Your task to perform on an android device: Go to location settings Image 0: 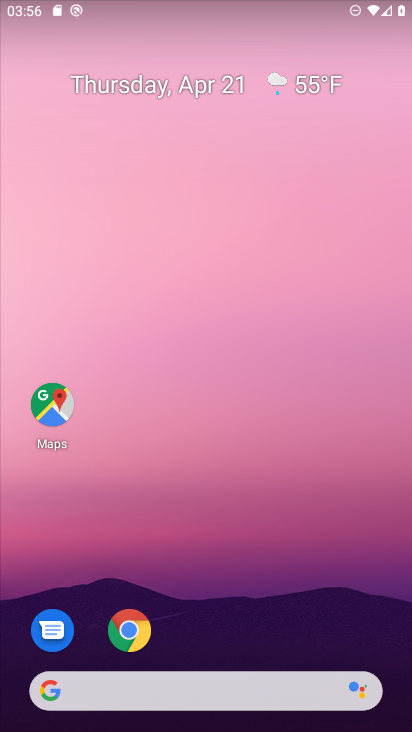
Step 0: drag from (293, 638) to (330, 37)
Your task to perform on an android device: Go to location settings Image 1: 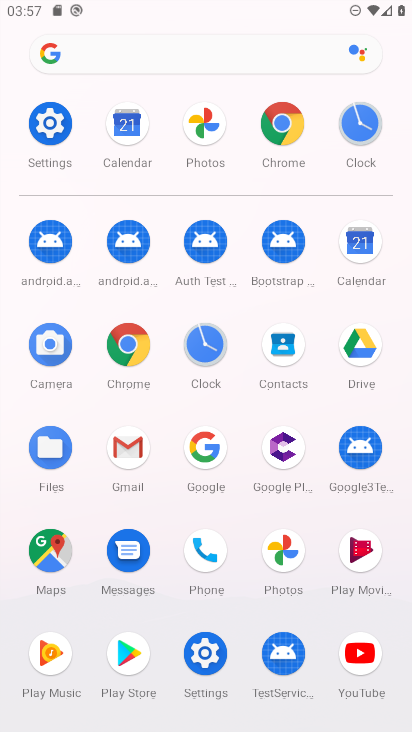
Step 1: click (46, 151)
Your task to perform on an android device: Go to location settings Image 2: 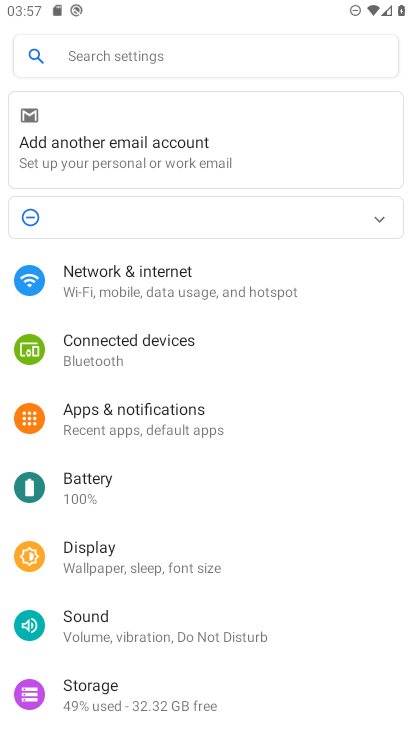
Step 2: drag from (167, 646) to (155, 445)
Your task to perform on an android device: Go to location settings Image 3: 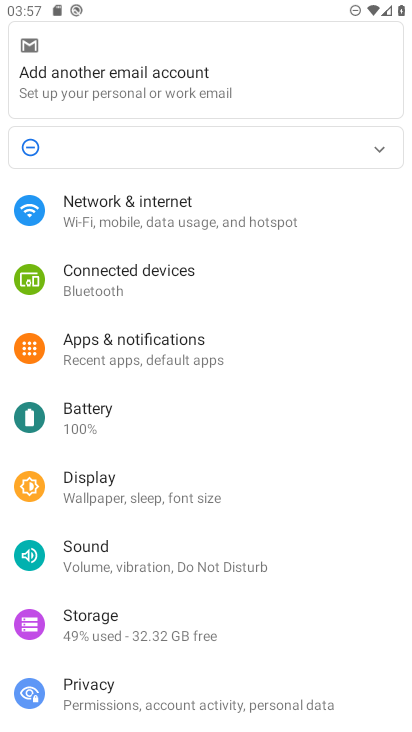
Step 3: drag from (165, 631) to (168, 244)
Your task to perform on an android device: Go to location settings Image 4: 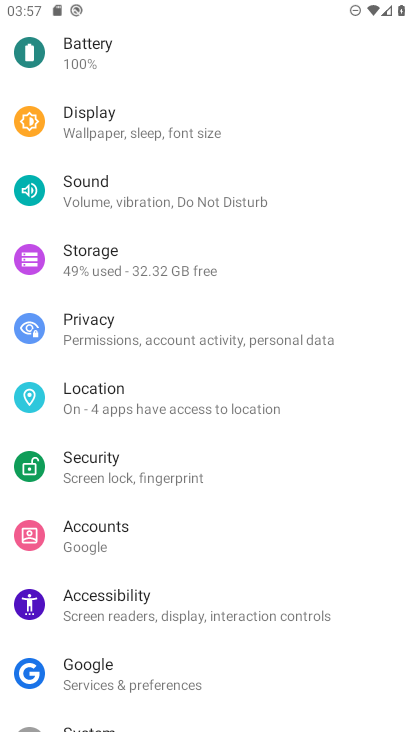
Step 4: drag from (148, 635) to (141, 225)
Your task to perform on an android device: Go to location settings Image 5: 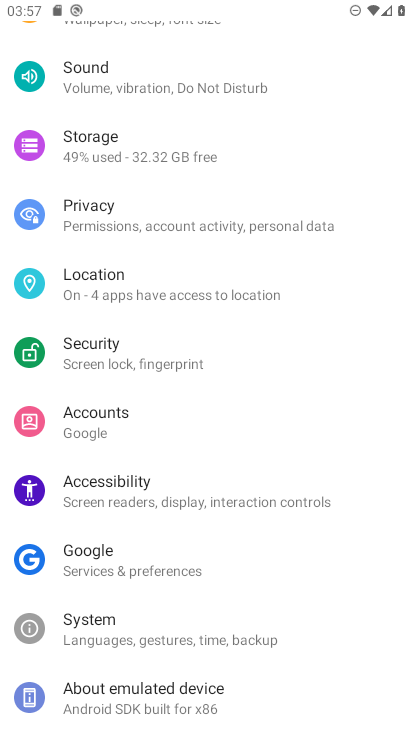
Step 5: click (202, 315)
Your task to perform on an android device: Go to location settings Image 6: 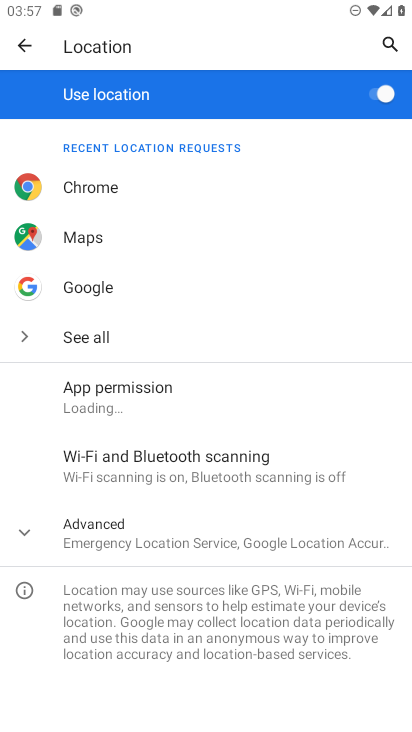
Step 6: task complete